Your task to perform on an android device: Is it going to rain today? Image 0: 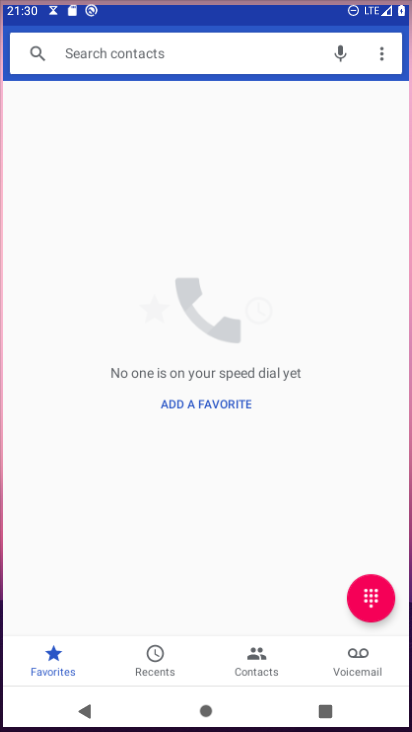
Step 0: press home button
Your task to perform on an android device: Is it going to rain today? Image 1: 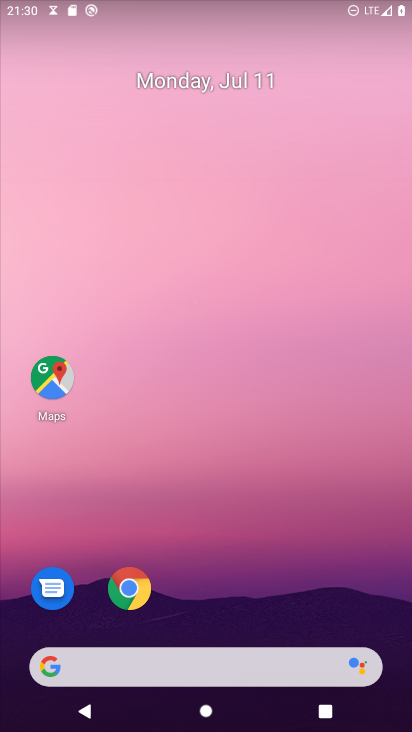
Step 1: click (56, 678)
Your task to perform on an android device: Is it going to rain today? Image 2: 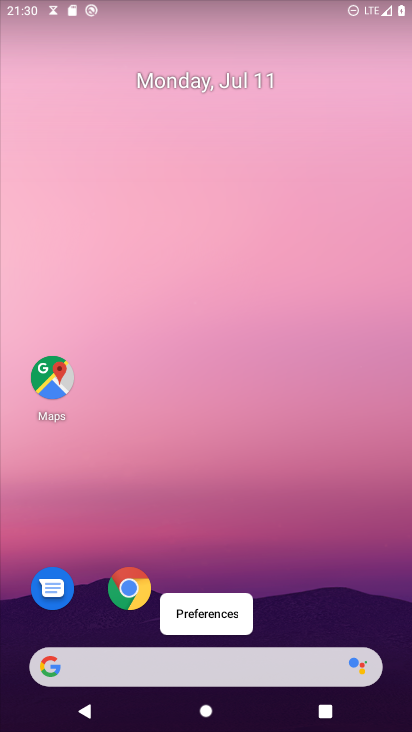
Step 2: click (59, 669)
Your task to perform on an android device: Is it going to rain today? Image 3: 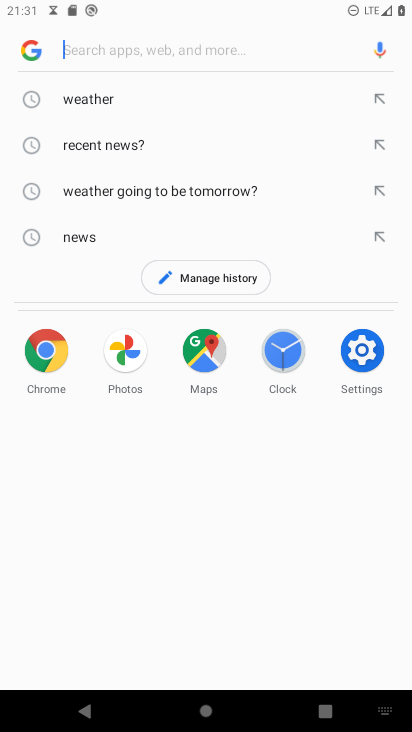
Step 3: type " rain today?"
Your task to perform on an android device: Is it going to rain today? Image 4: 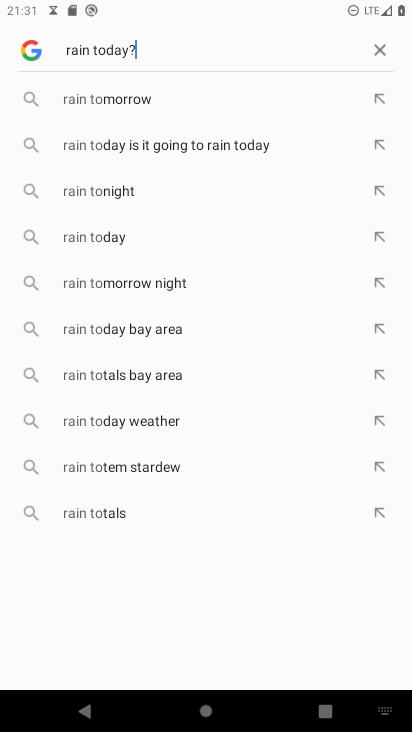
Step 4: press enter
Your task to perform on an android device: Is it going to rain today? Image 5: 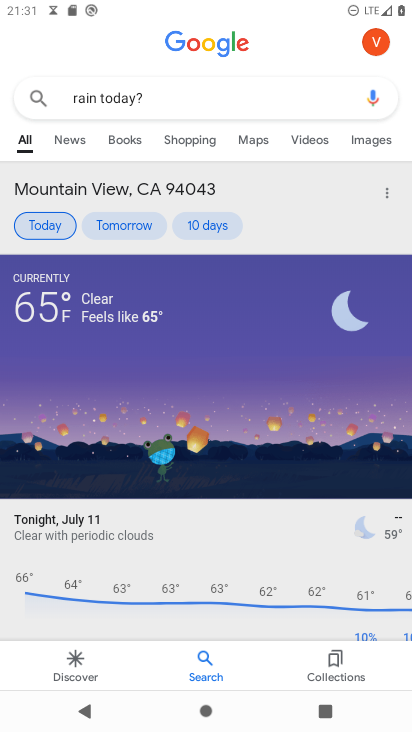
Step 5: task complete